Your task to perform on an android device: Is it going to rain today? Image 0: 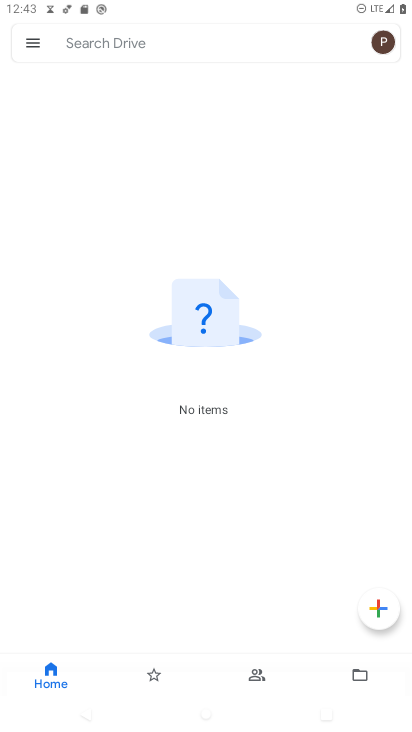
Step 0: press home button
Your task to perform on an android device: Is it going to rain today? Image 1: 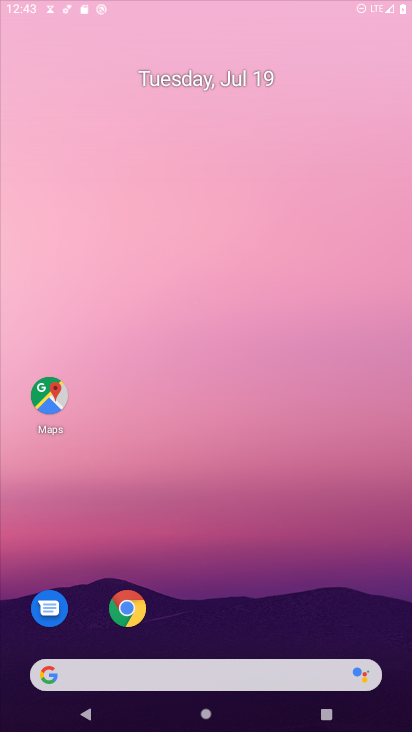
Step 1: drag from (267, 471) to (304, 71)
Your task to perform on an android device: Is it going to rain today? Image 2: 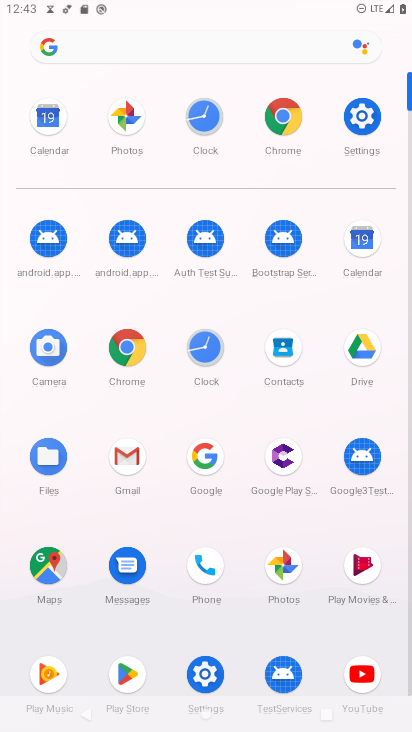
Step 2: click (127, 352)
Your task to perform on an android device: Is it going to rain today? Image 3: 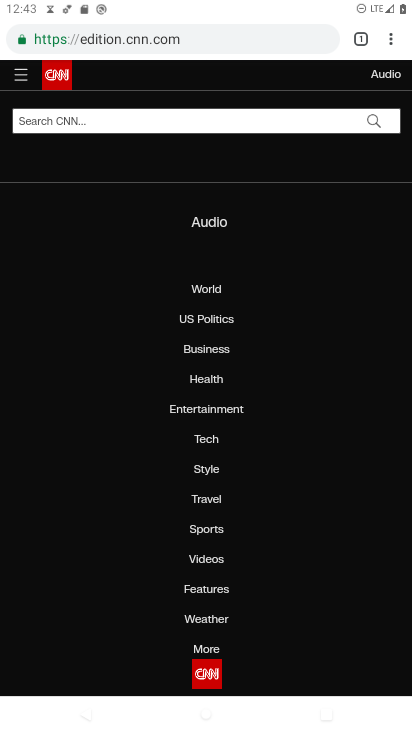
Step 3: click (154, 43)
Your task to perform on an android device: Is it going to rain today? Image 4: 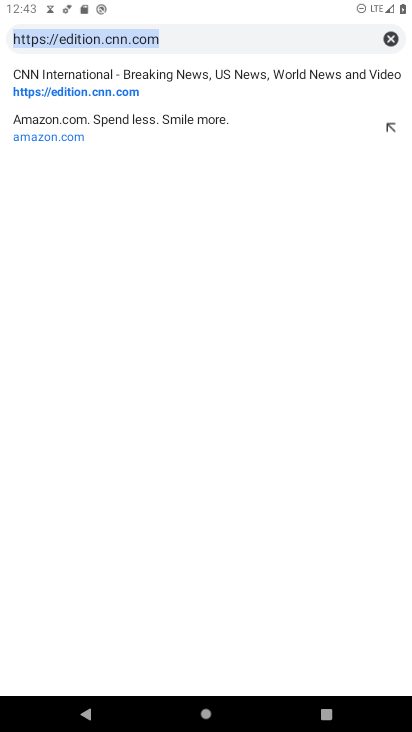
Step 4: type "going to rain today"
Your task to perform on an android device: Is it going to rain today? Image 5: 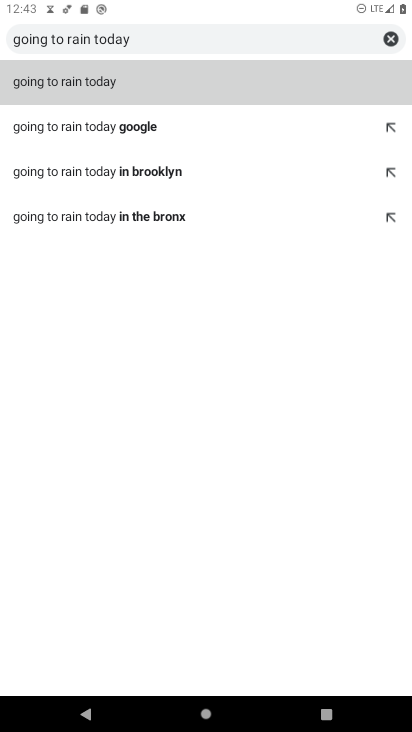
Step 5: click (169, 87)
Your task to perform on an android device: Is it going to rain today? Image 6: 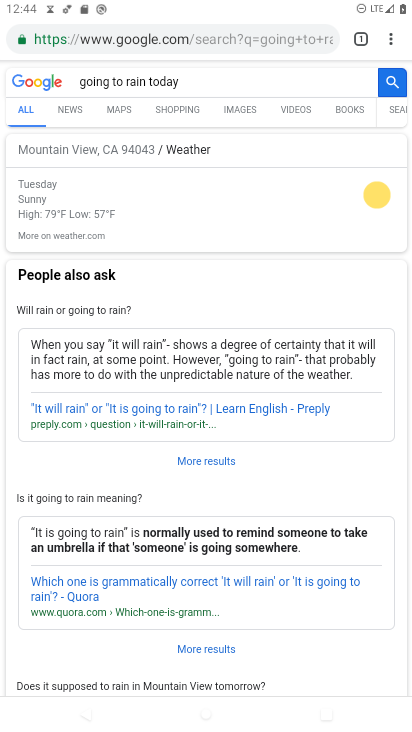
Step 6: task complete